Your task to perform on an android device: Add acer predator to the cart on ebay Image 0: 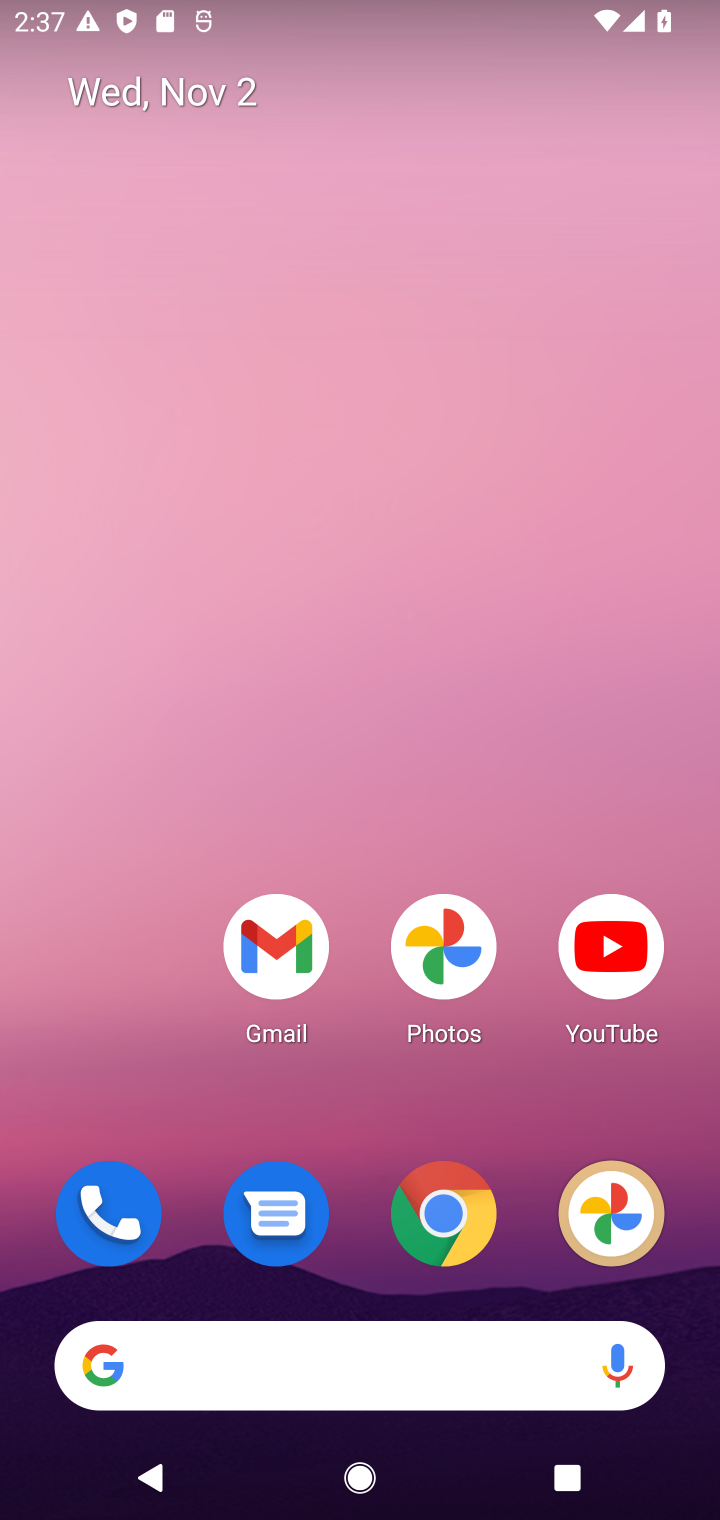
Step 0: click (434, 1225)
Your task to perform on an android device: Add acer predator to the cart on ebay Image 1: 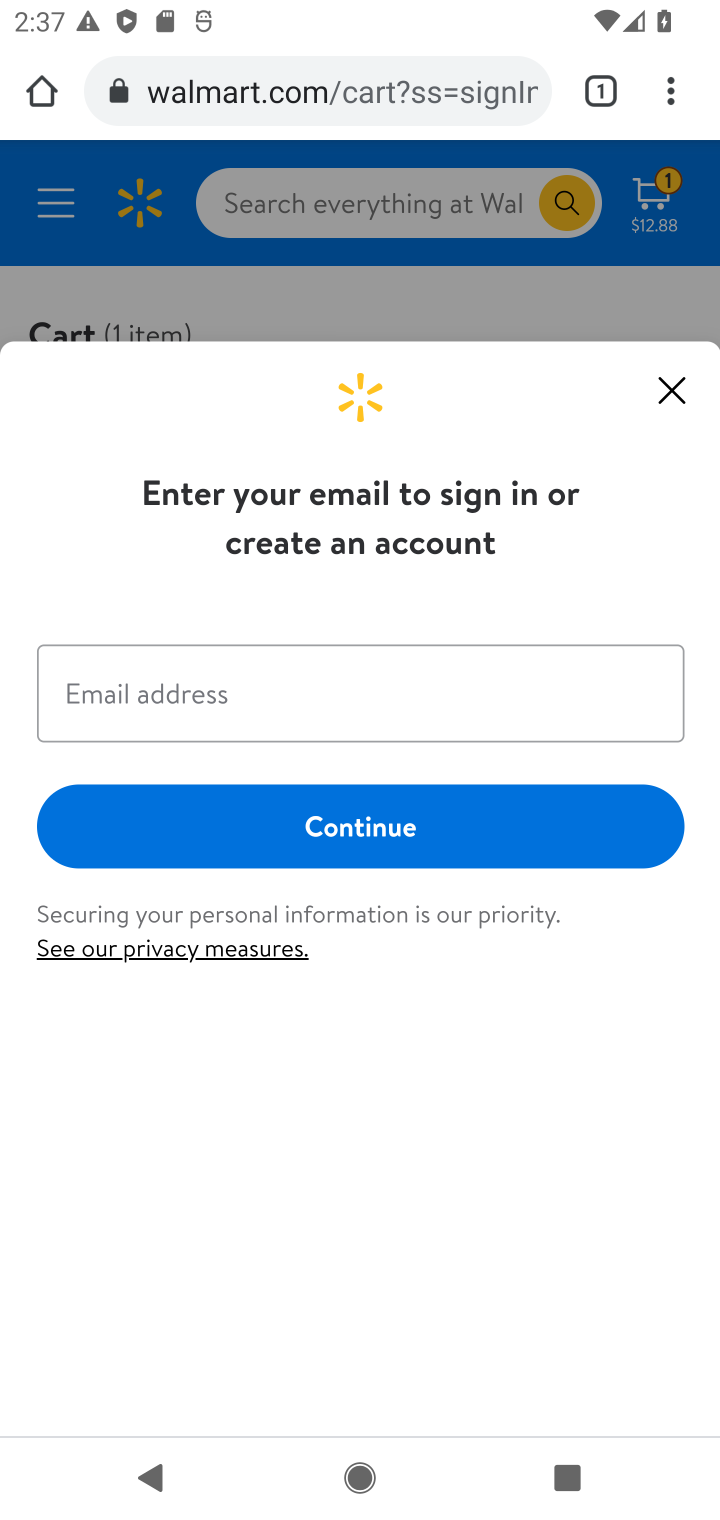
Step 1: click (391, 76)
Your task to perform on an android device: Add acer predator to the cart on ebay Image 2: 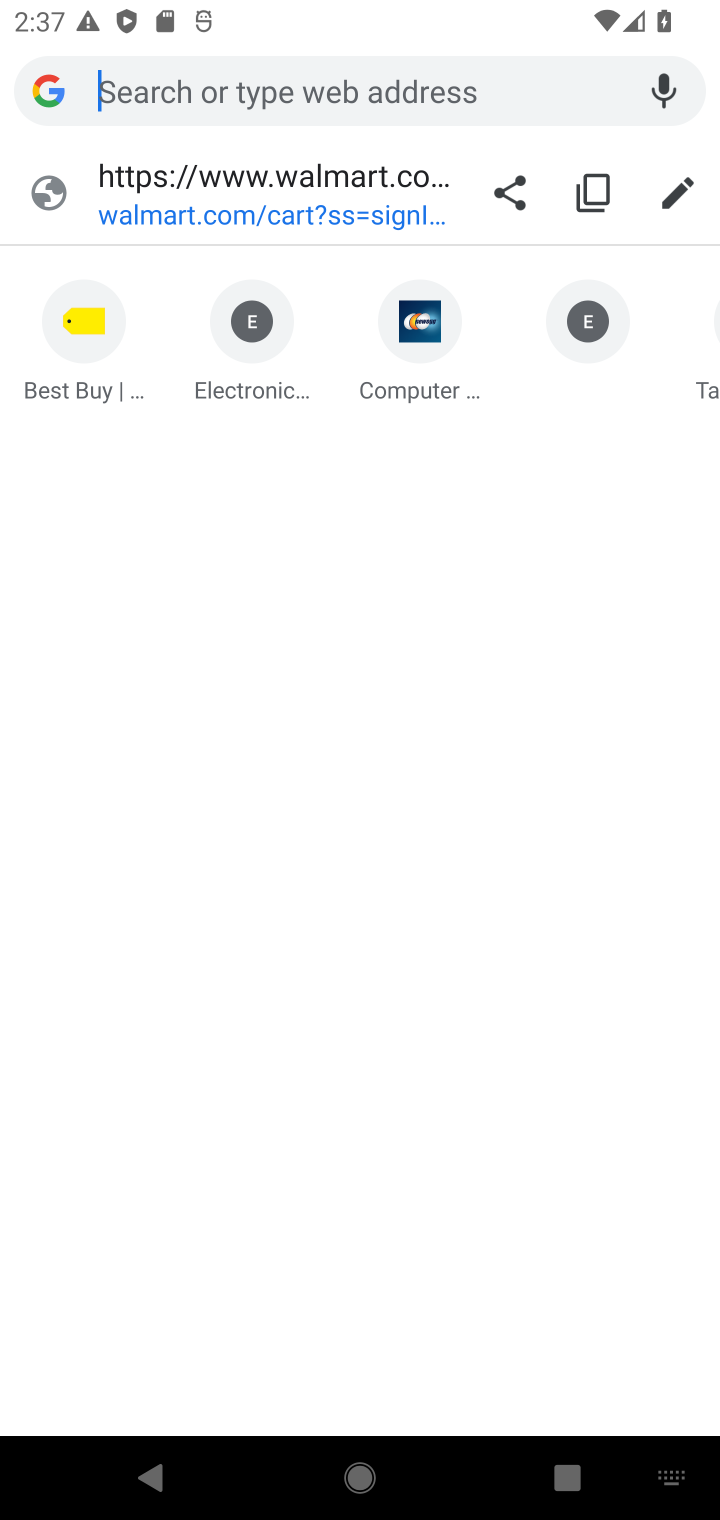
Step 2: type "ebay"
Your task to perform on an android device: Add acer predator to the cart on ebay Image 3: 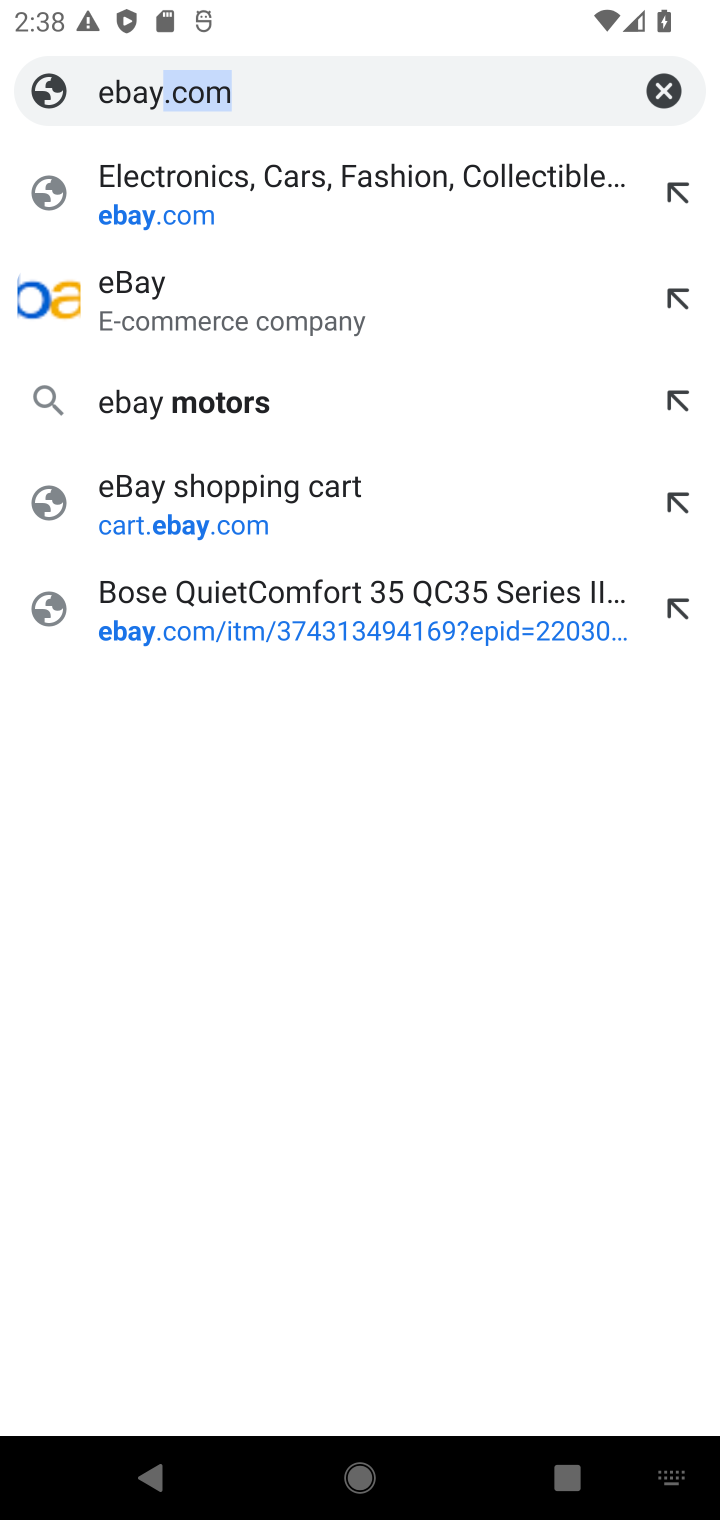
Step 3: click (389, 184)
Your task to perform on an android device: Add acer predator to the cart on ebay Image 4: 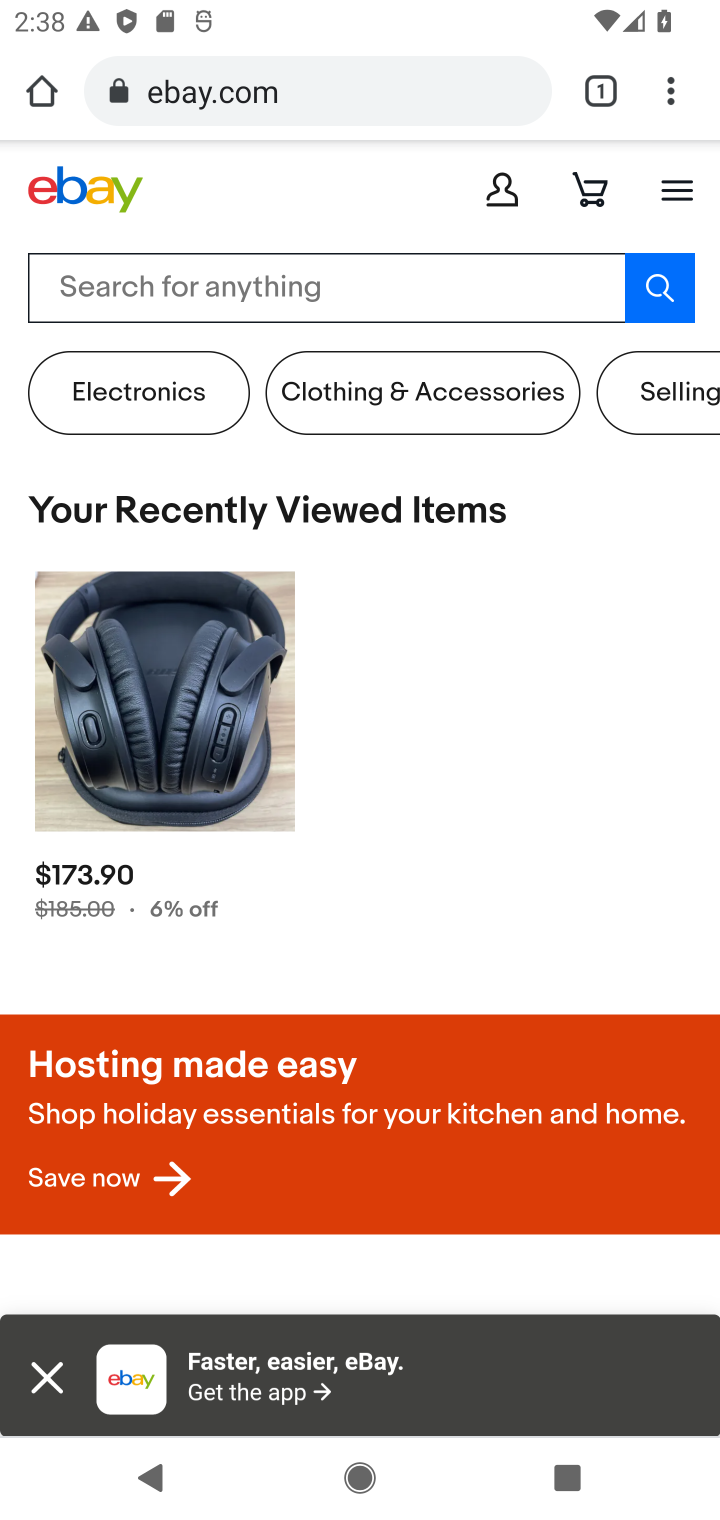
Step 4: click (560, 287)
Your task to perform on an android device: Add acer predator to the cart on ebay Image 5: 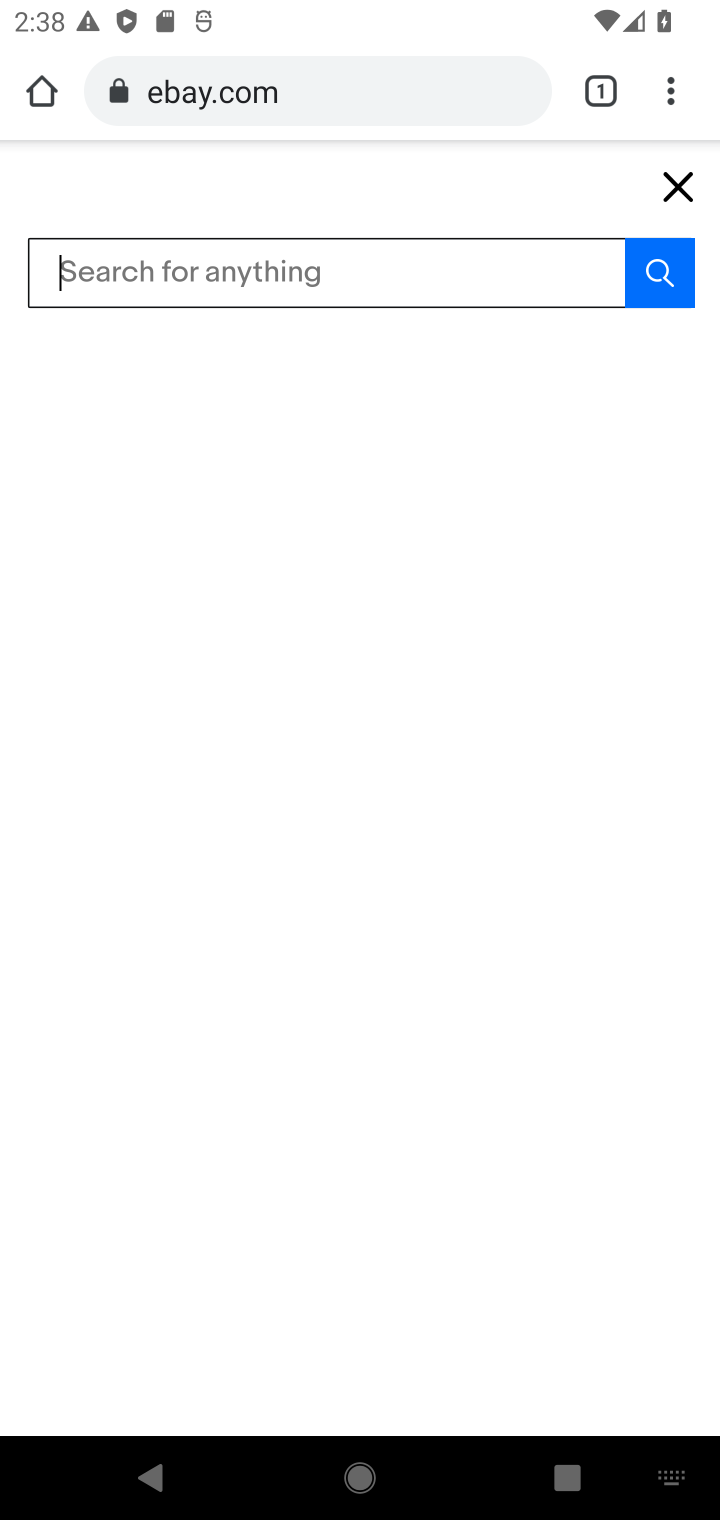
Step 5: type "acer predator"
Your task to perform on an android device: Add acer predator to the cart on ebay Image 6: 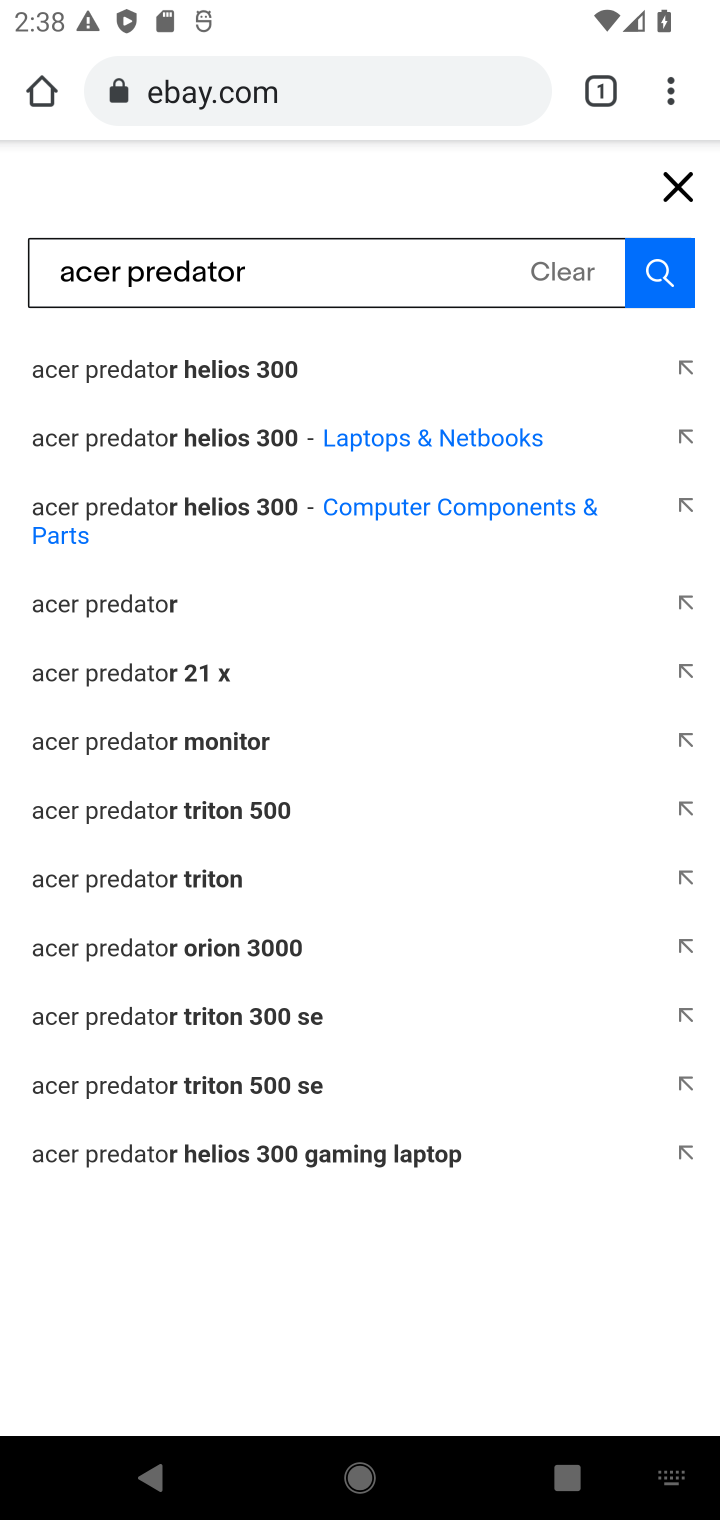
Step 6: click (669, 299)
Your task to perform on an android device: Add acer predator to the cart on ebay Image 7: 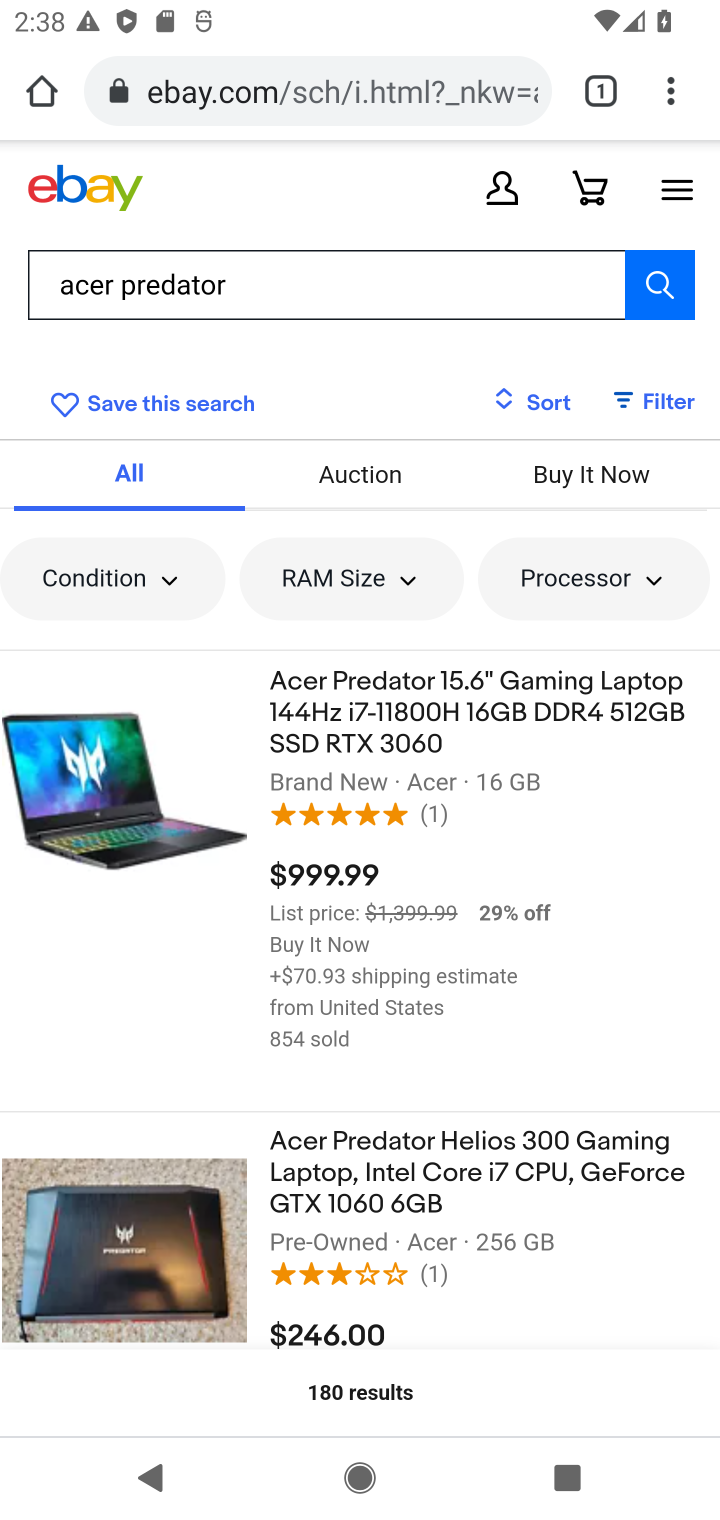
Step 7: click (421, 726)
Your task to perform on an android device: Add acer predator to the cart on ebay Image 8: 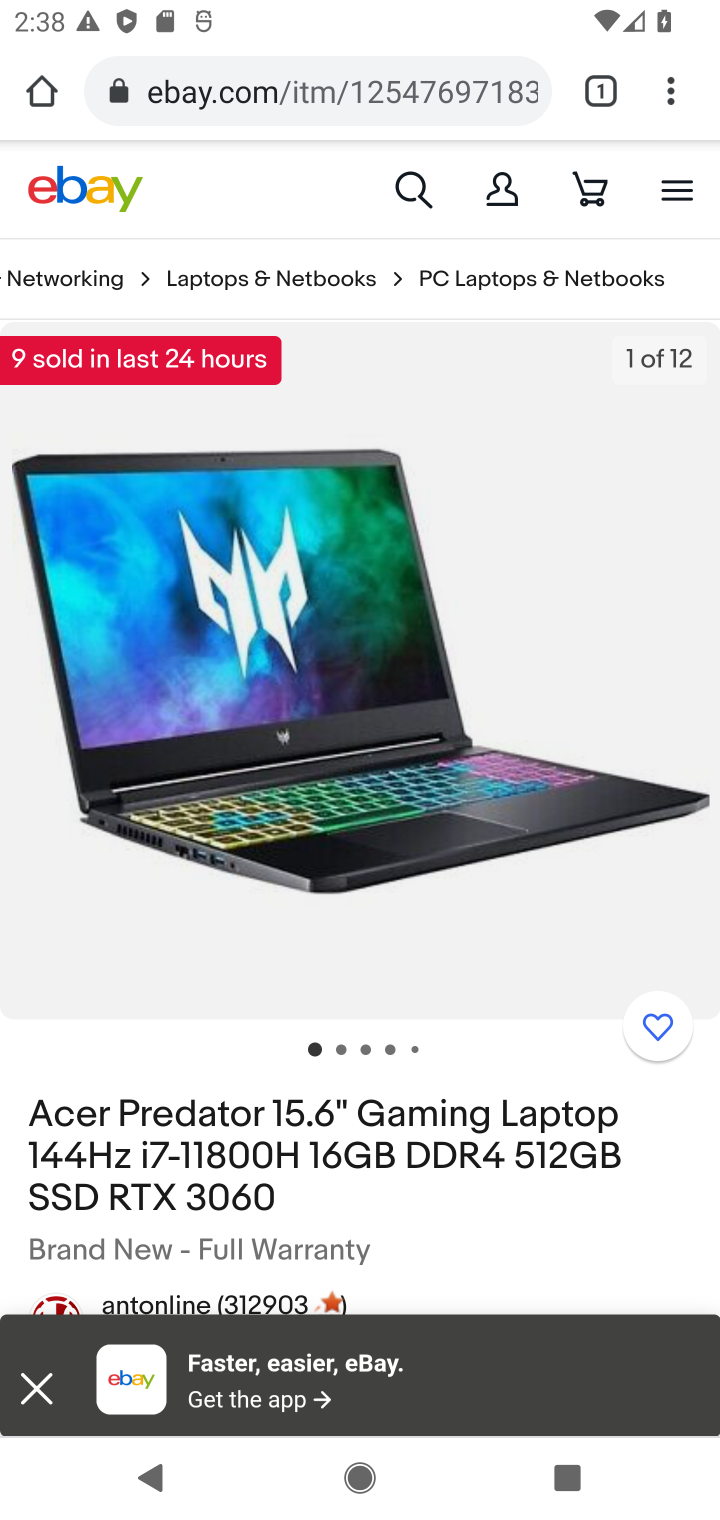
Step 8: drag from (499, 1270) to (490, 360)
Your task to perform on an android device: Add acer predator to the cart on ebay Image 9: 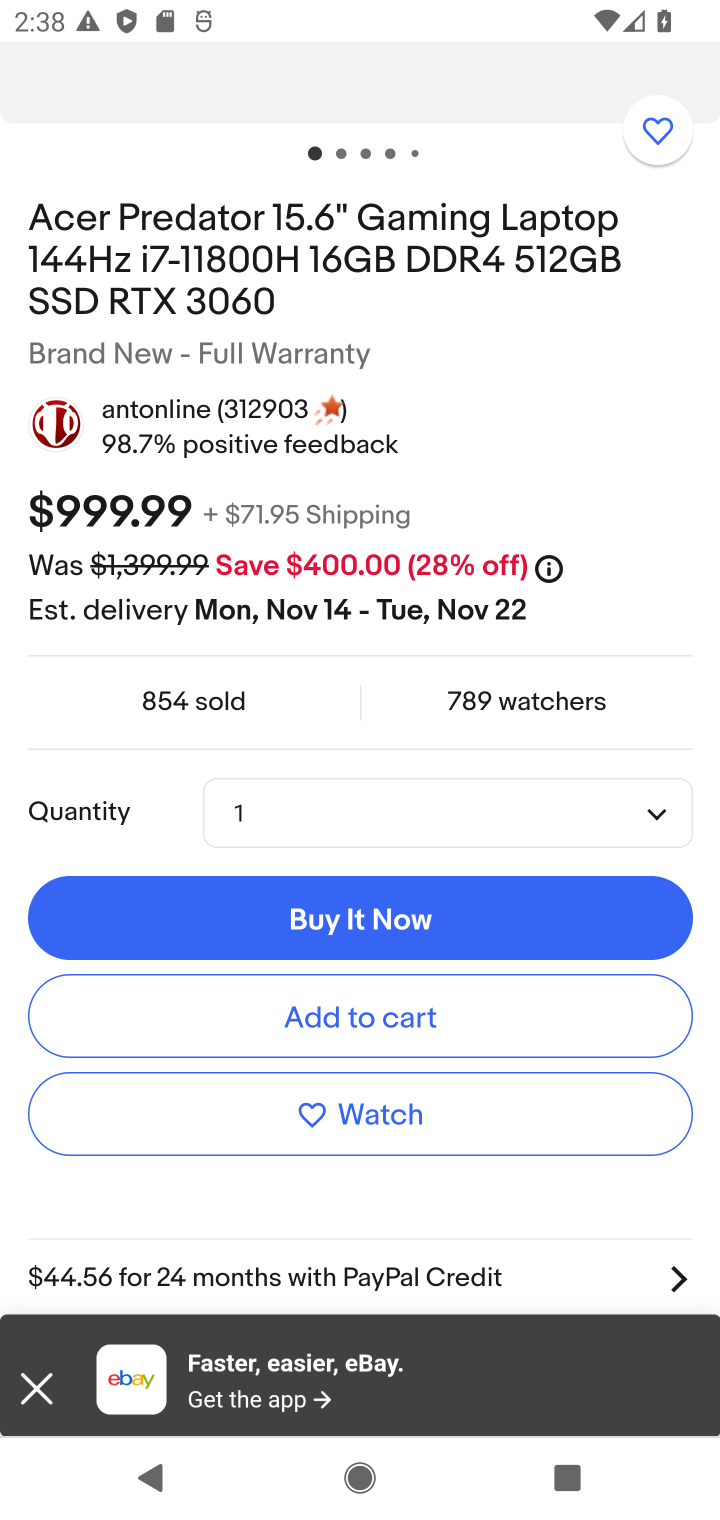
Step 9: click (343, 1013)
Your task to perform on an android device: Add acer predator to the cart on ebay Image 10: 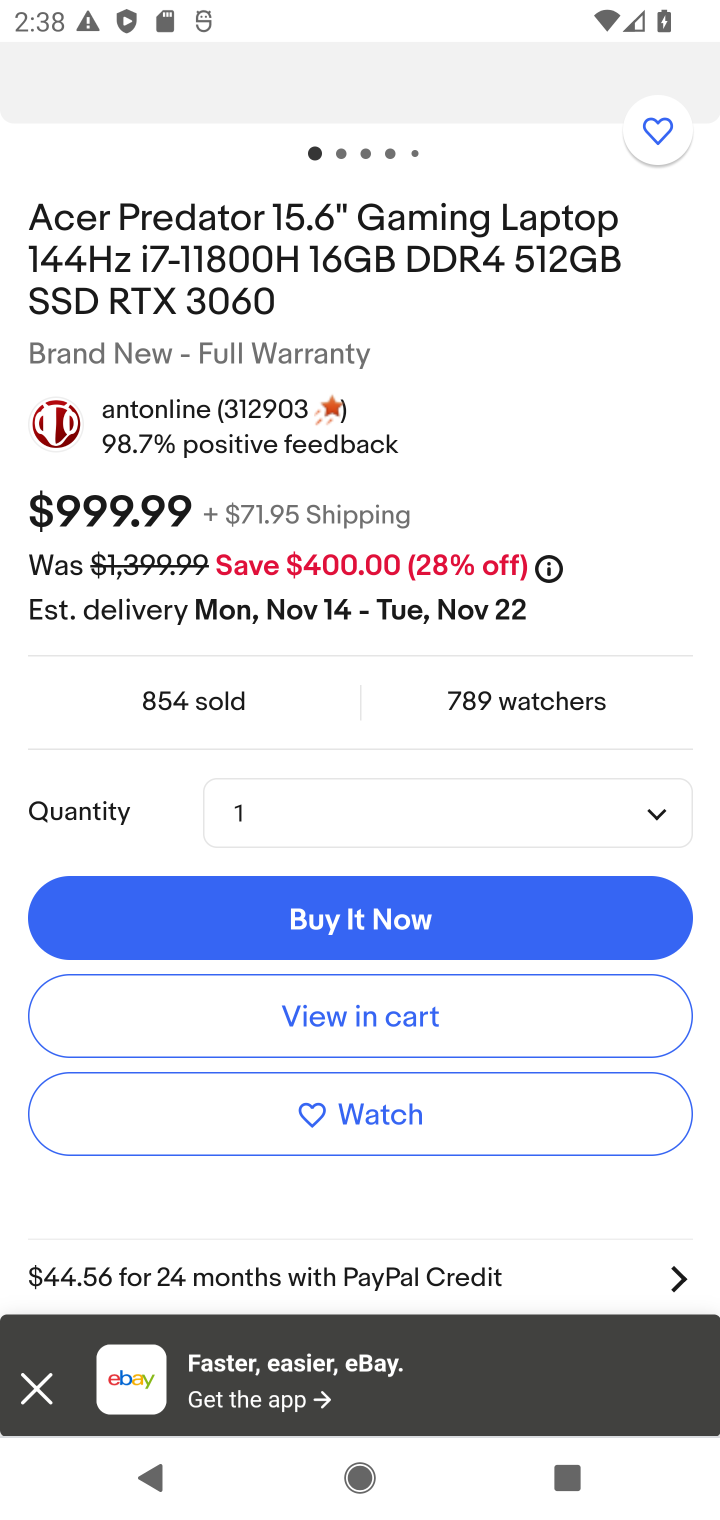
Step 10: task complete